Your task to perform on an android device: What's the weather going to be this weekend? Image 0: 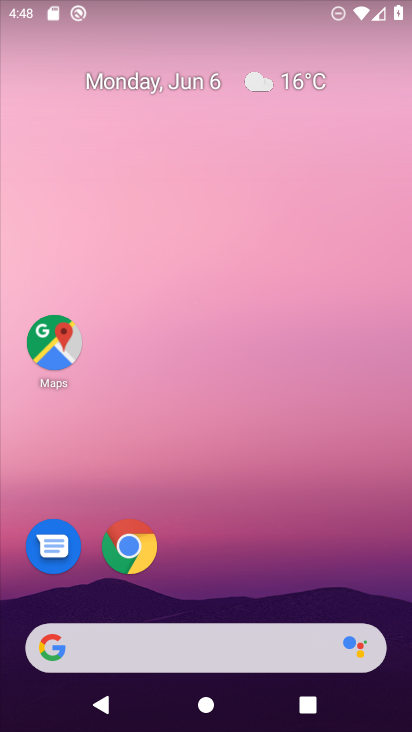
Step 0: drag from (196, 613) to (151, 64)
Your task to perform on an android device: What's the weather going to be this weekend? Image 1: 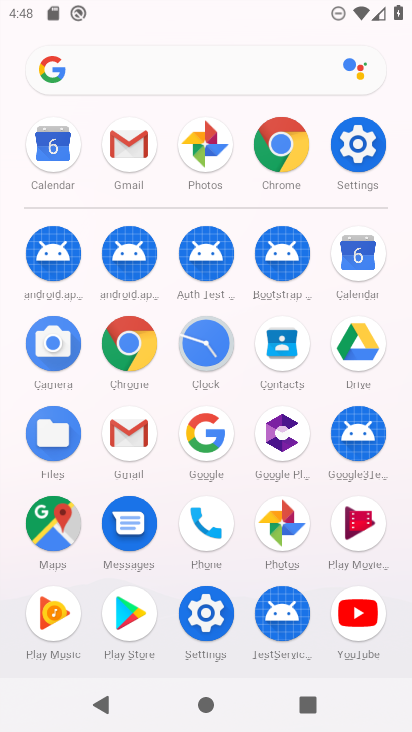
Step 1: click (202, 449)
Your task to perform on an android device: What's the weather going to be this weekend? Image 2: 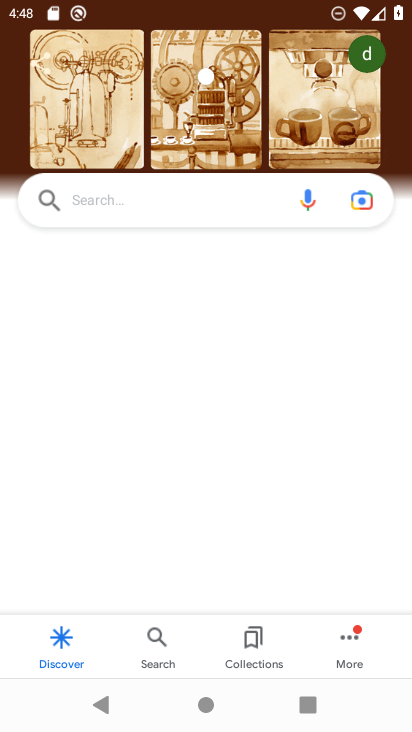
Step 2: click (177, 222)
Your task to perform on an android device: What's the weather going to be this weekend? Image 3: 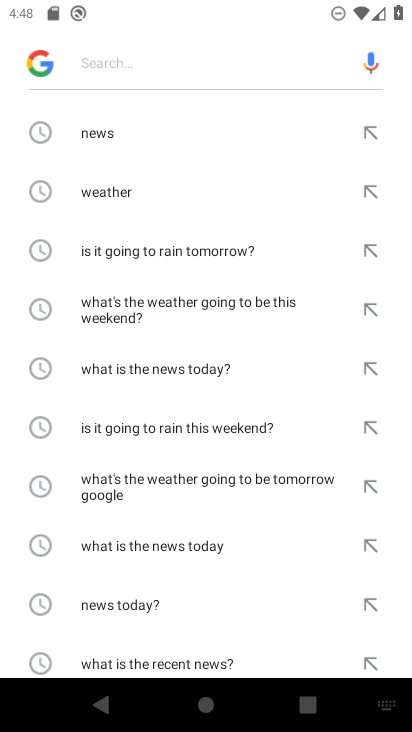
Step 3: click (99, 186)
Your task to perform on an android device: What's the weather going to be this weekend? Image 4: 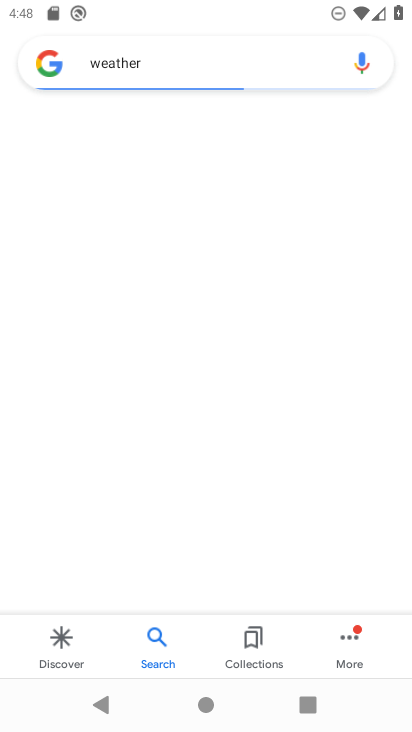
Step 4: task complete